Your task to perform on an android device: delete location history Image 0: 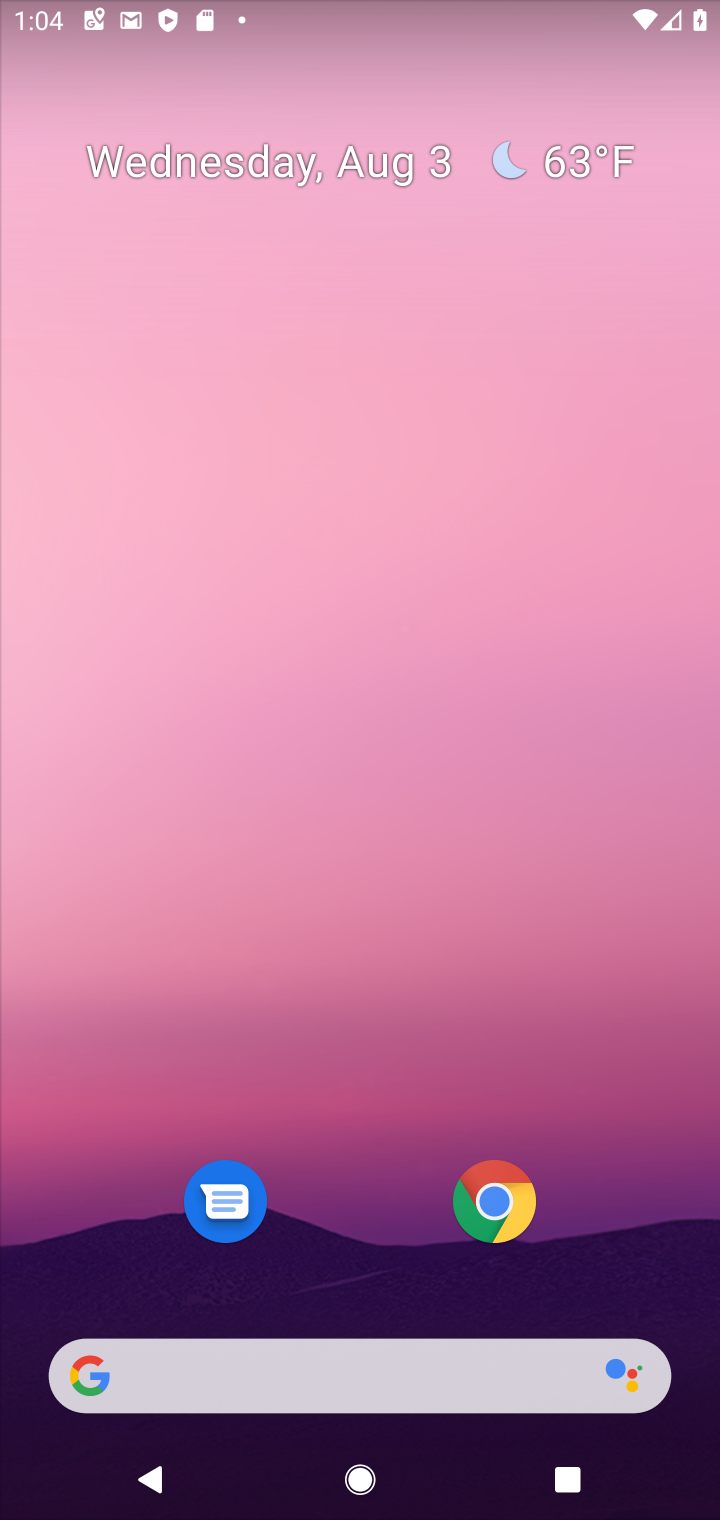
Step 0: drag from (414, 1360) to (488, 196)
Your task to perform on an android device: delete location history Image 1: 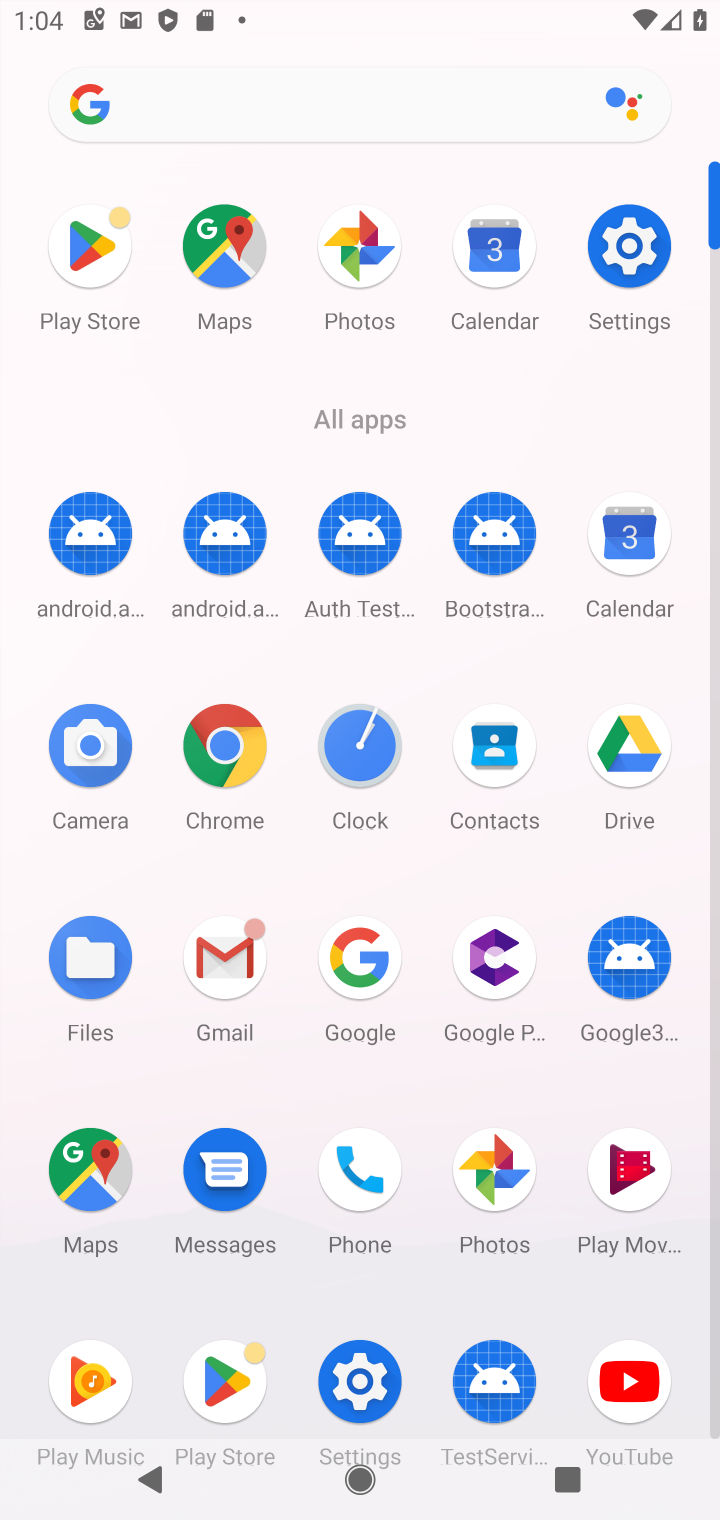
Step 1: click (91, 1163)
Your task to perform on an android device: delete location history Image 2: 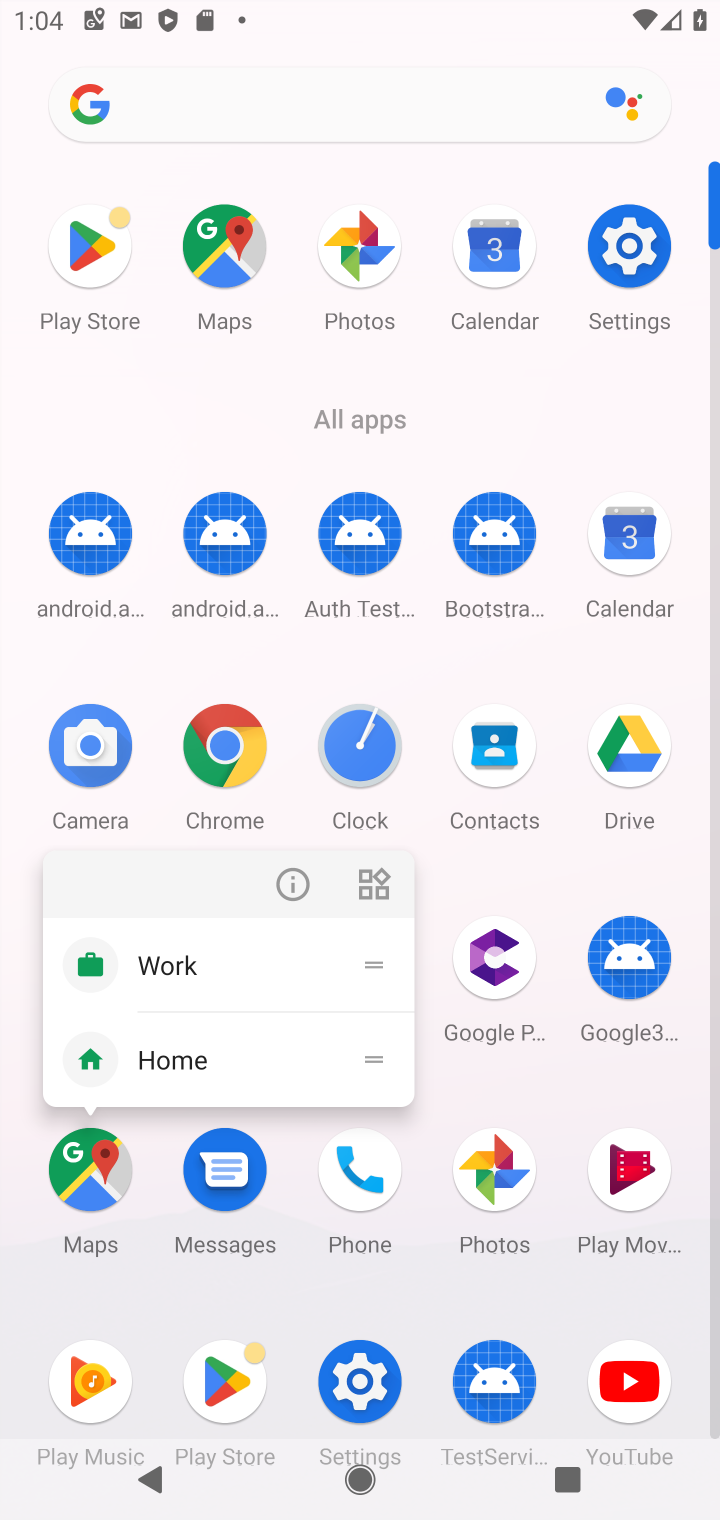
Step 2: click (91, 1170)
Your task to perform on an android device: delete location history Image 3: 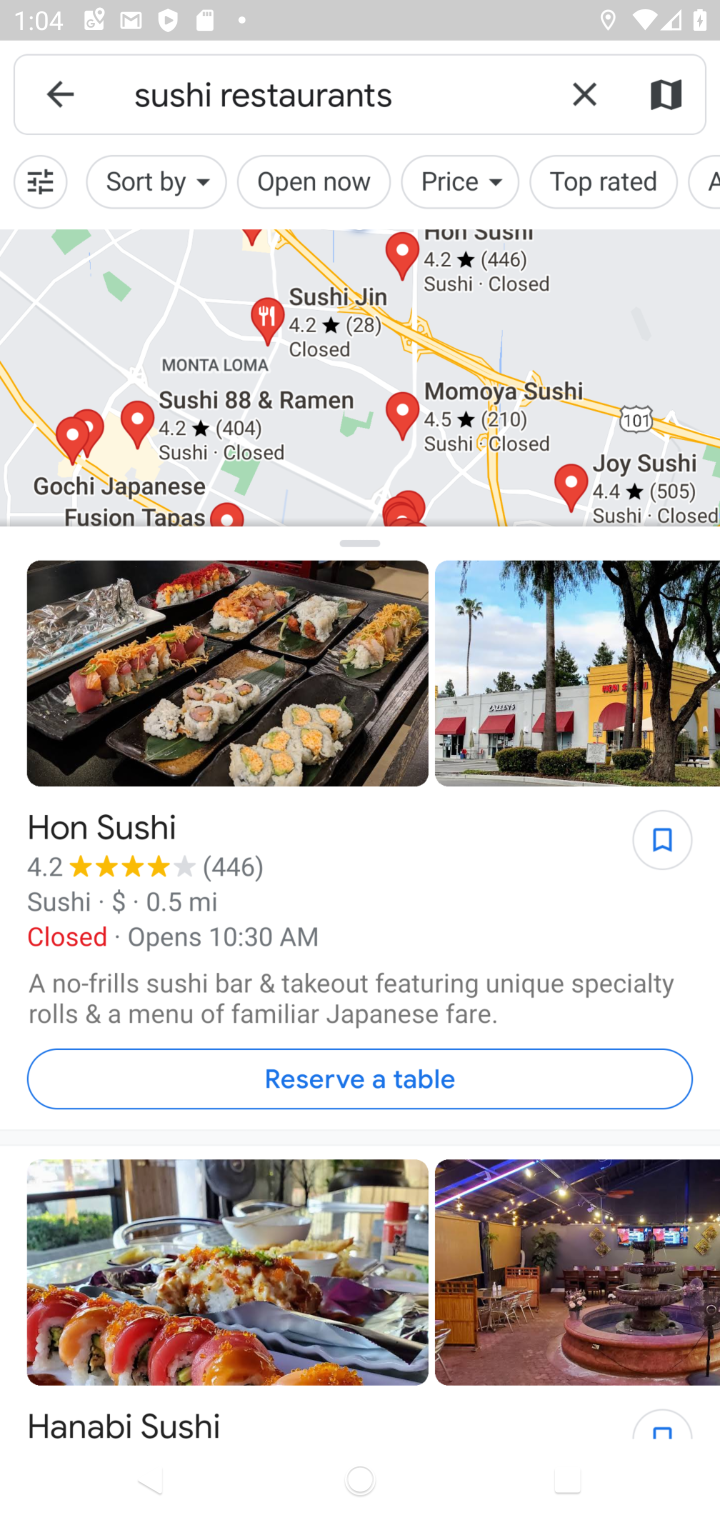
Step 3: click (70, 95)
Your task to perform on an android device: delete location history Image 4: 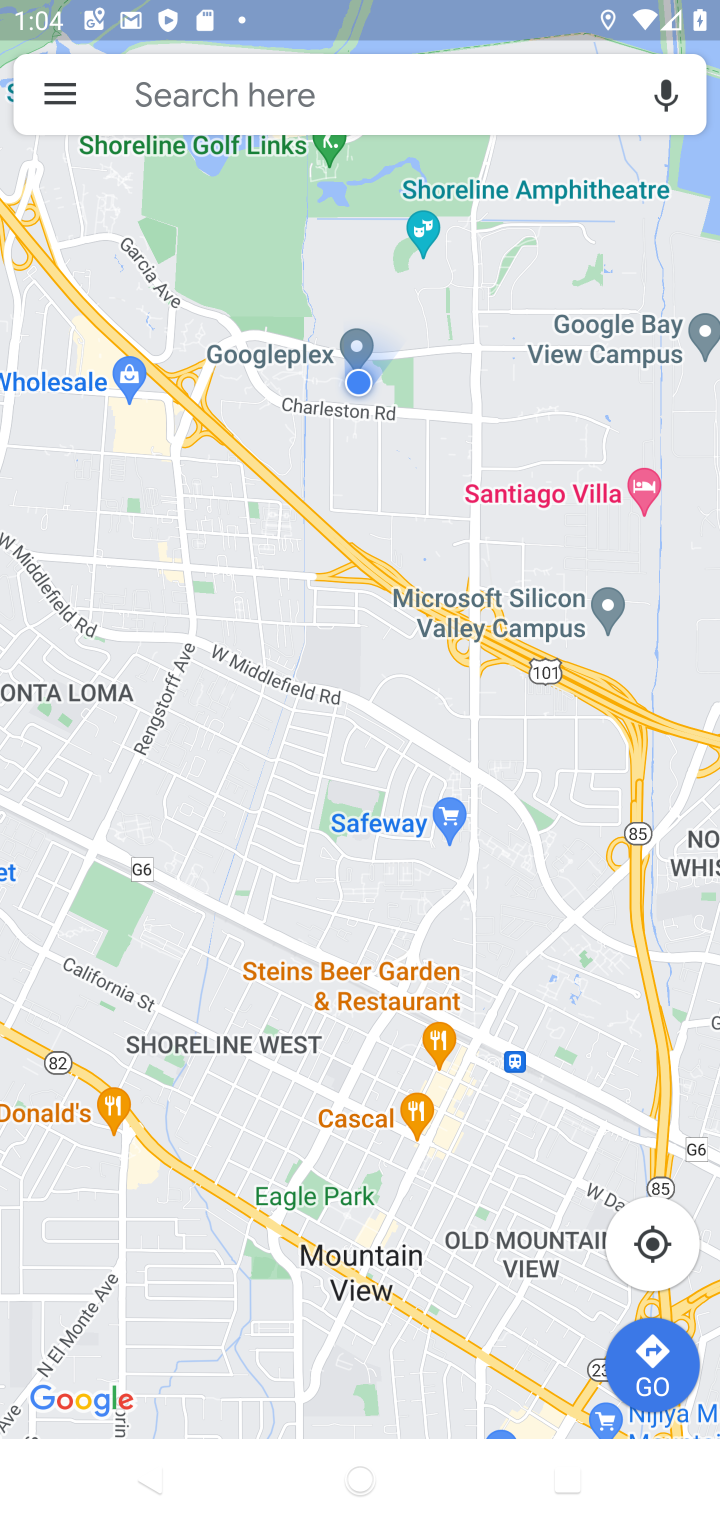
Step 4: click (62, 84)
Your task to perform on an android device: delete location history Image 5: 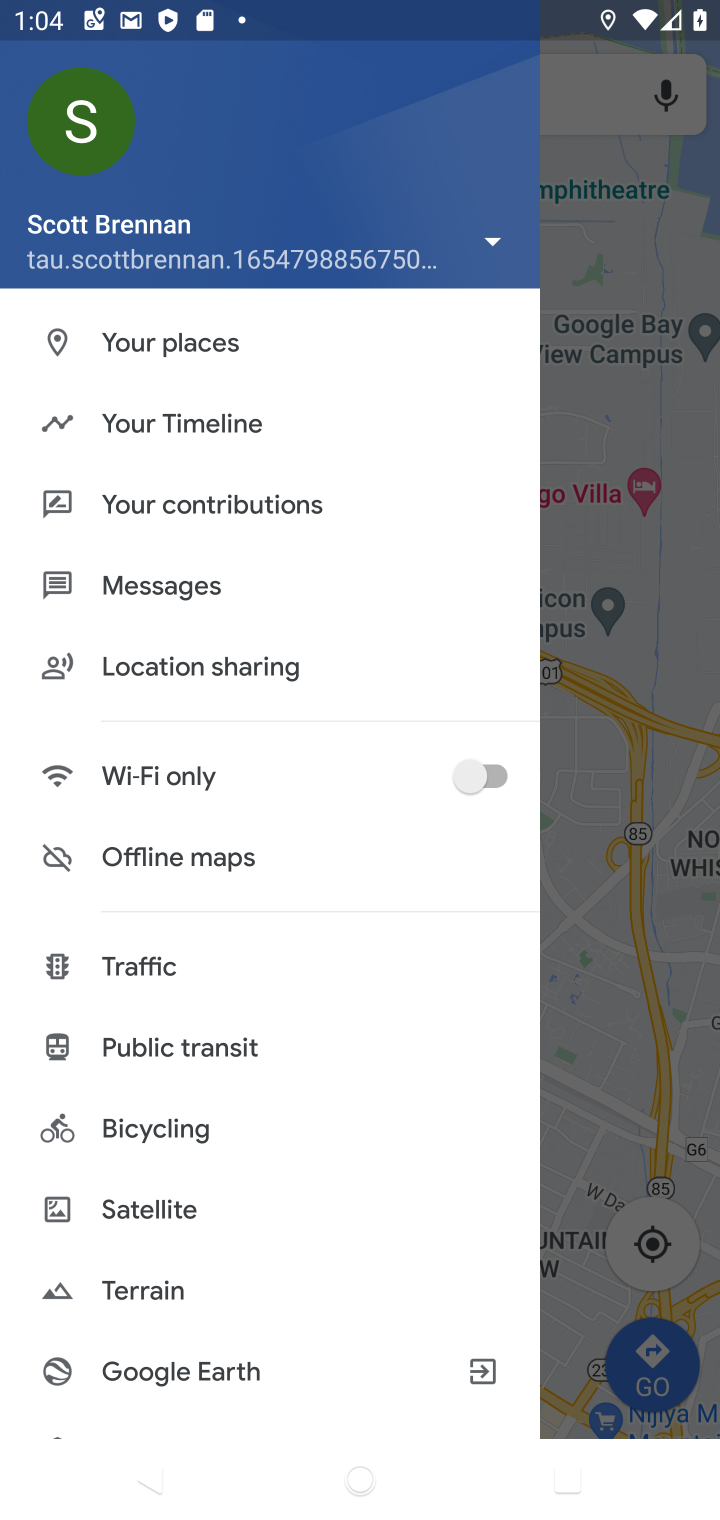
Step 5: click (237, 434)
Your task to perform on an android device: delete location history Image 6: 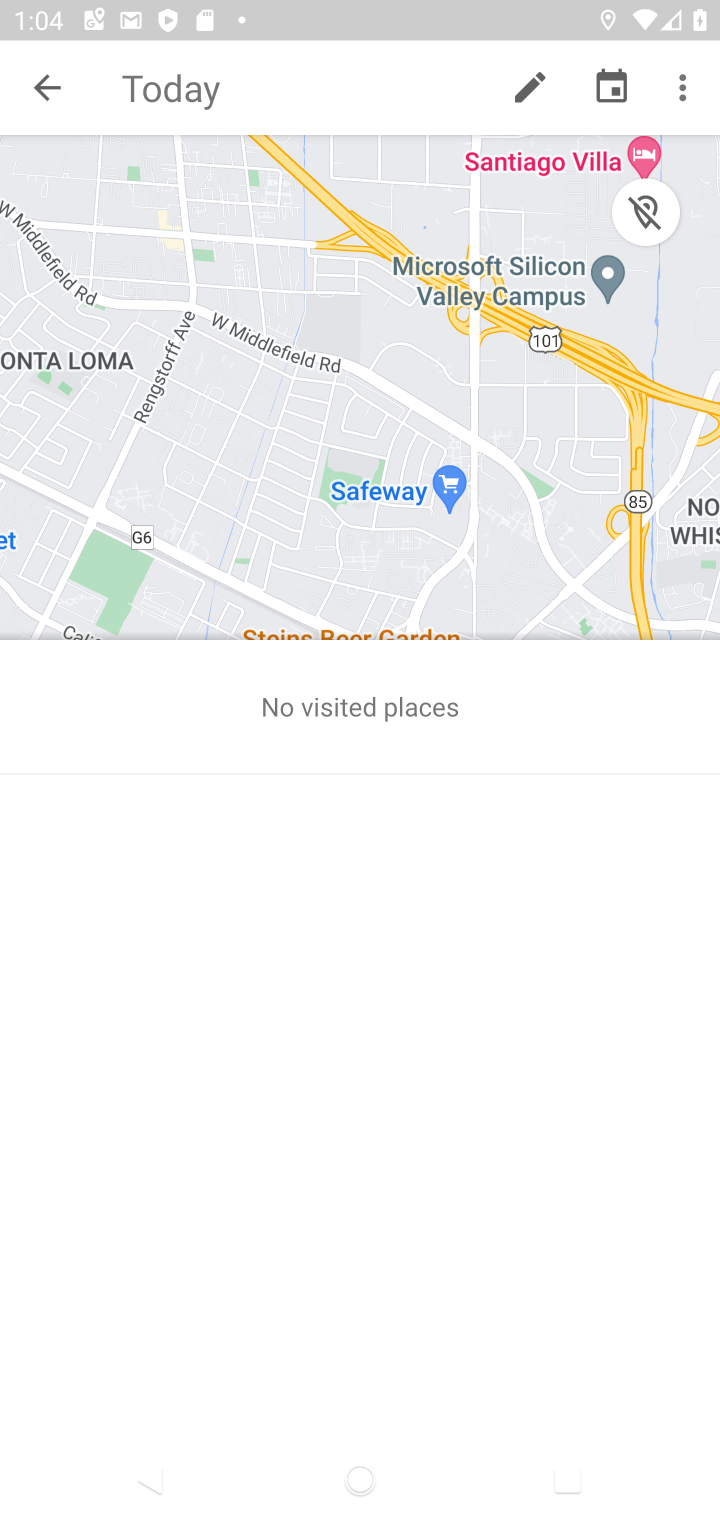
Step 6: click (684, 83)
Your task to perform on an android device: delete location history Image 7: 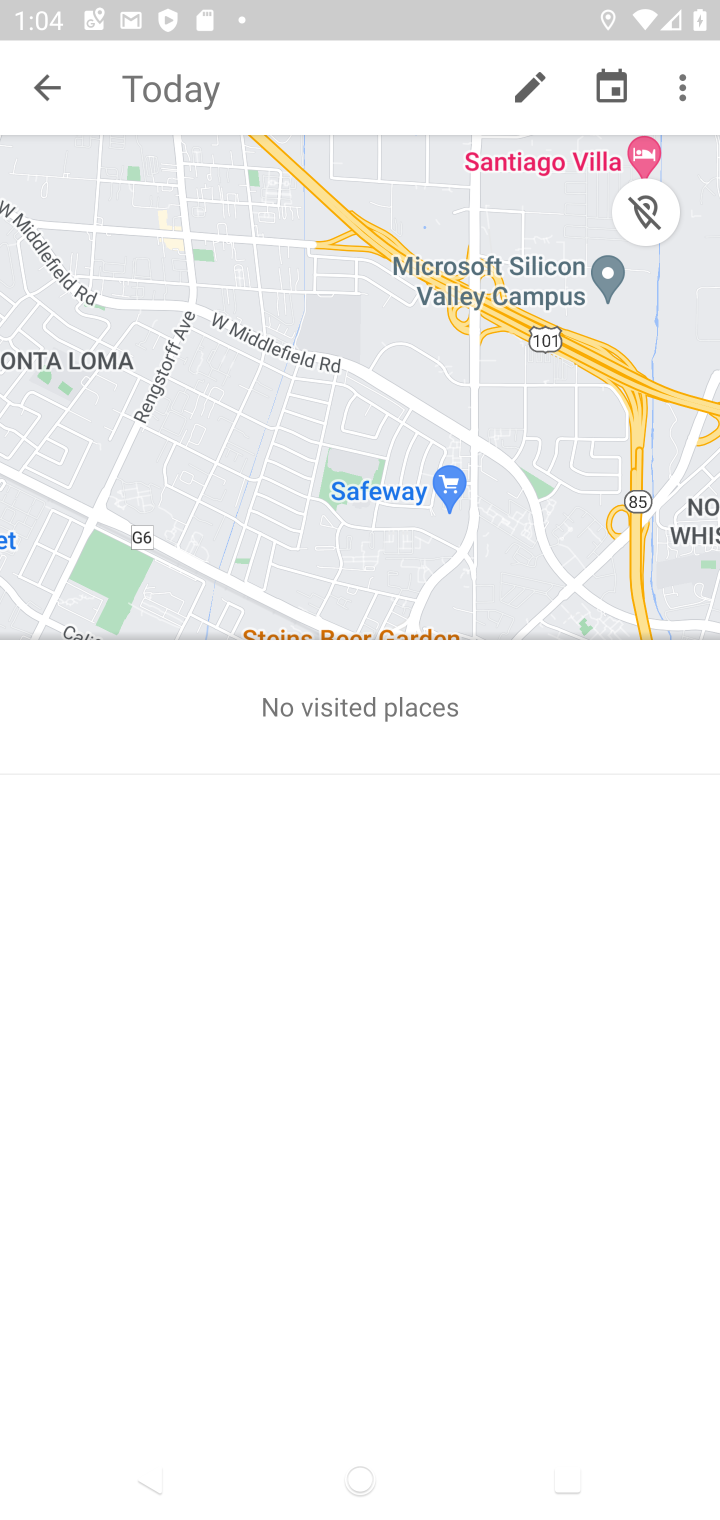
Step 7: click (677, 93)
Your task to perform on an android device: delete location history Image 8: 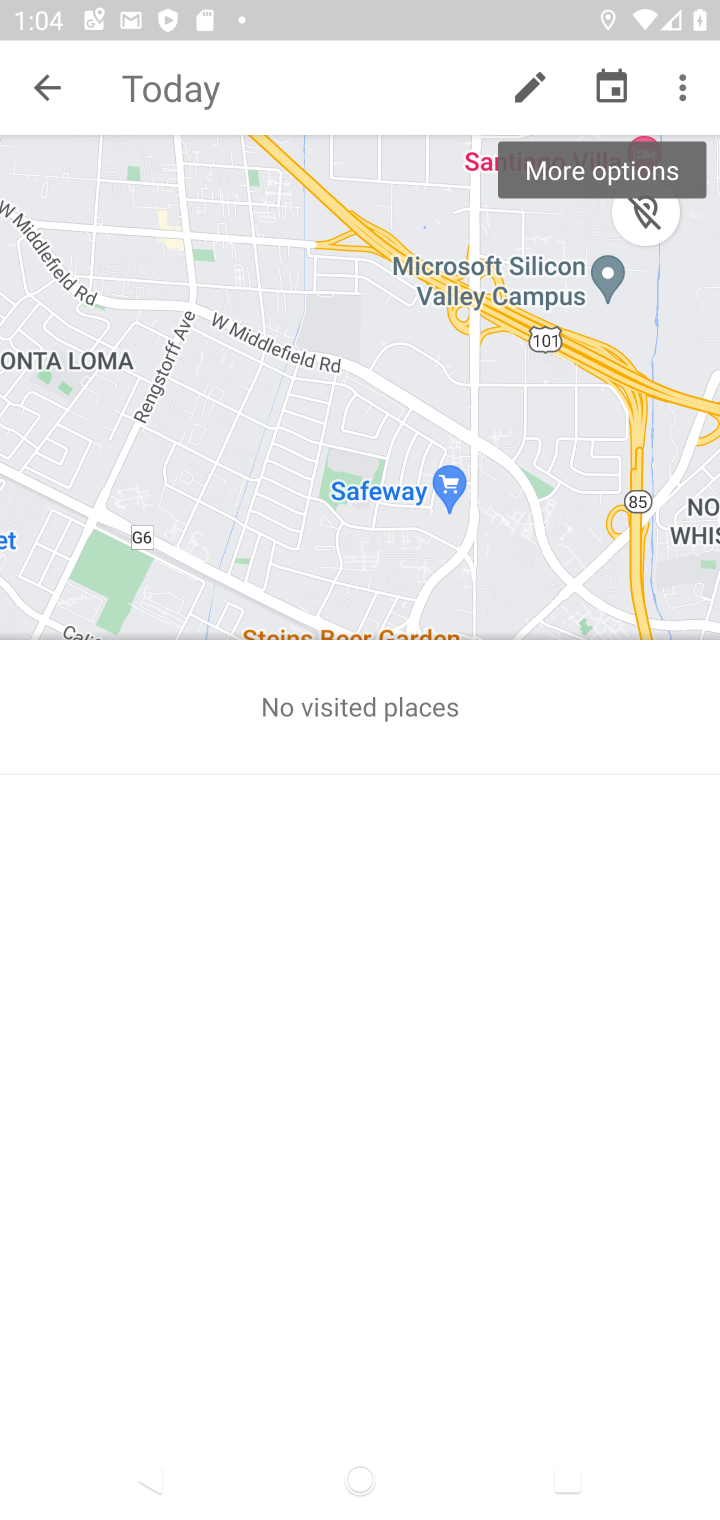
Step 8: click (683, 77)
Your task to perform on an android device: delete location history Image 9: 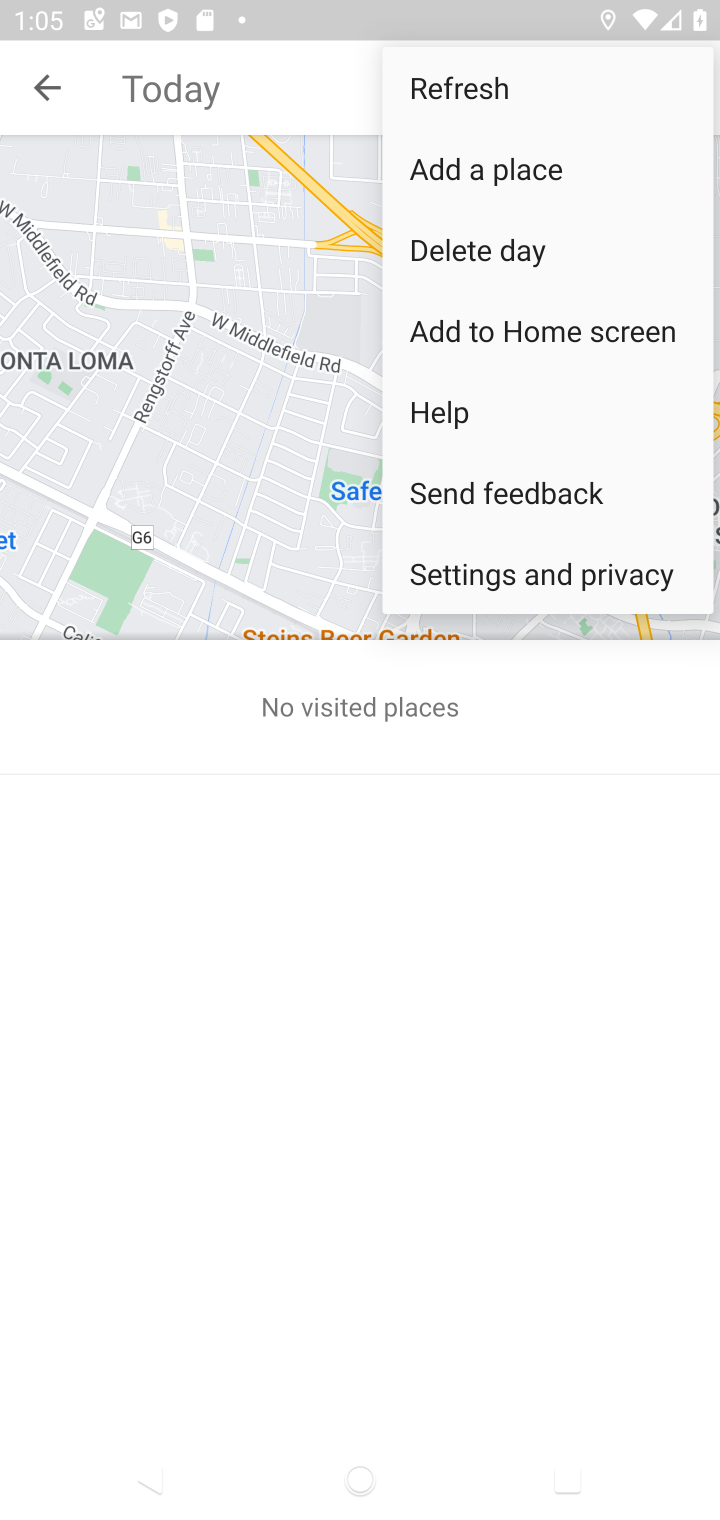
Step 9: click (460, 578)
Your task to perform on an android device: delete location history Image 10: 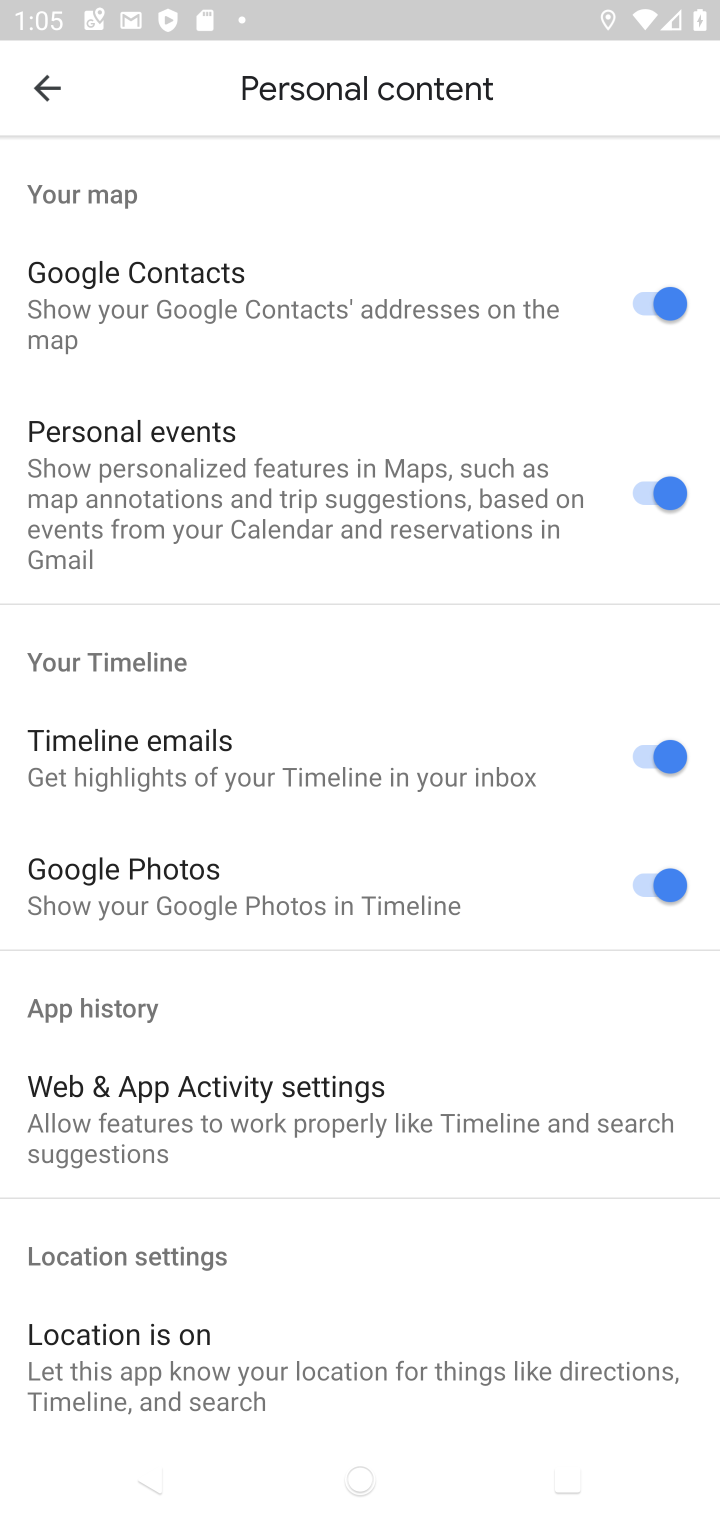
Step 10: drag from (327, 1328) to (535, 328)
Your task to perform on an android device: delete location history Image 11: 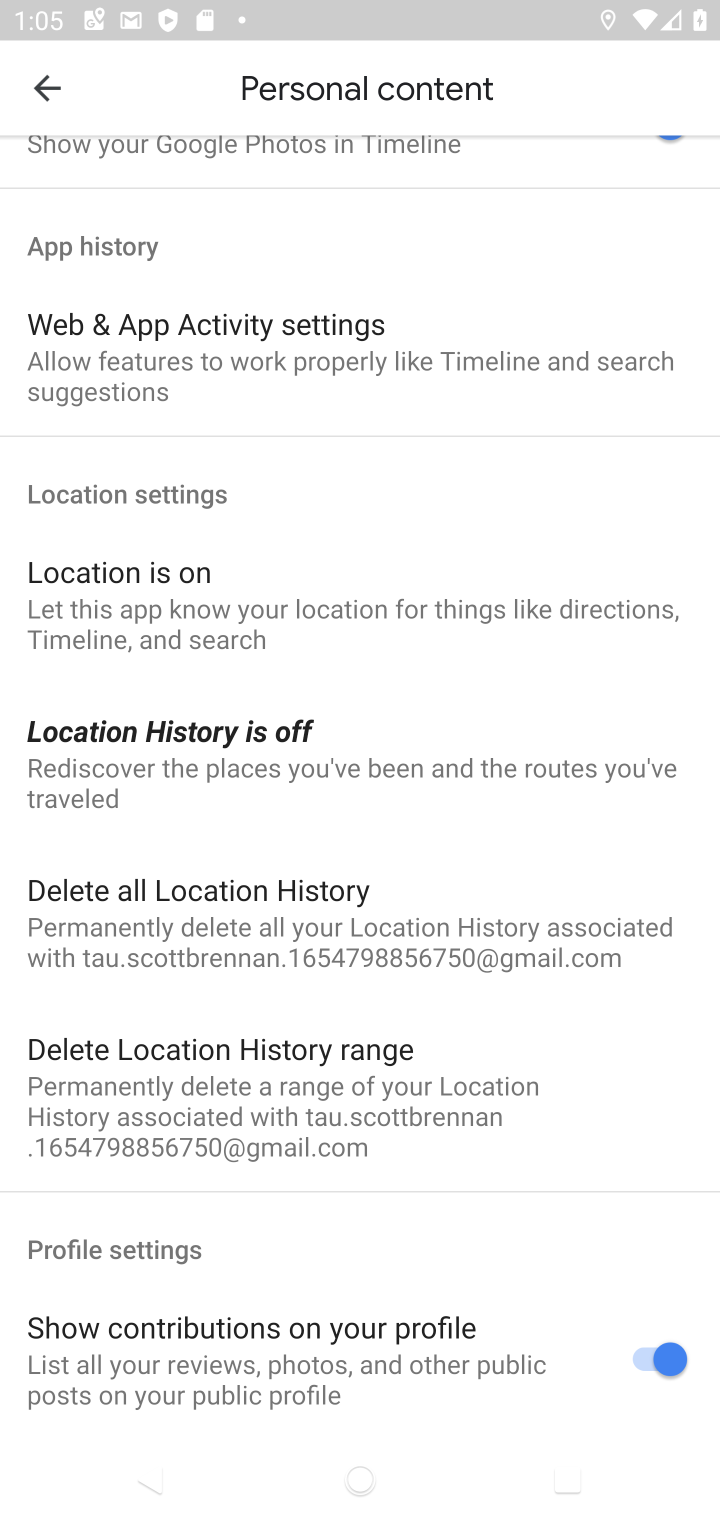
Step 11: click (240, 923)
Your task to perform on an android device: delete location history Image 12: 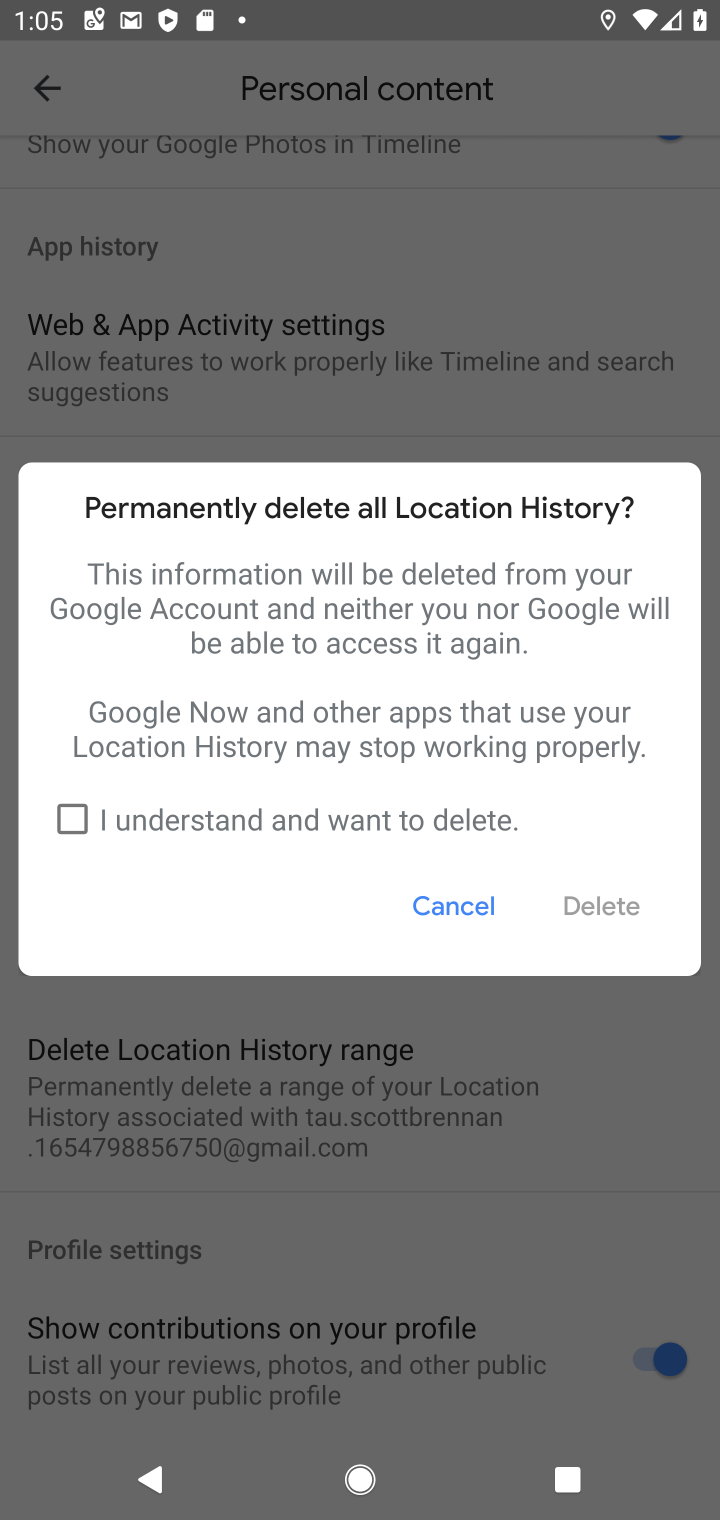
Step 12: click (70, 806)
Your task to perform on an android device: delete location history Image 13: 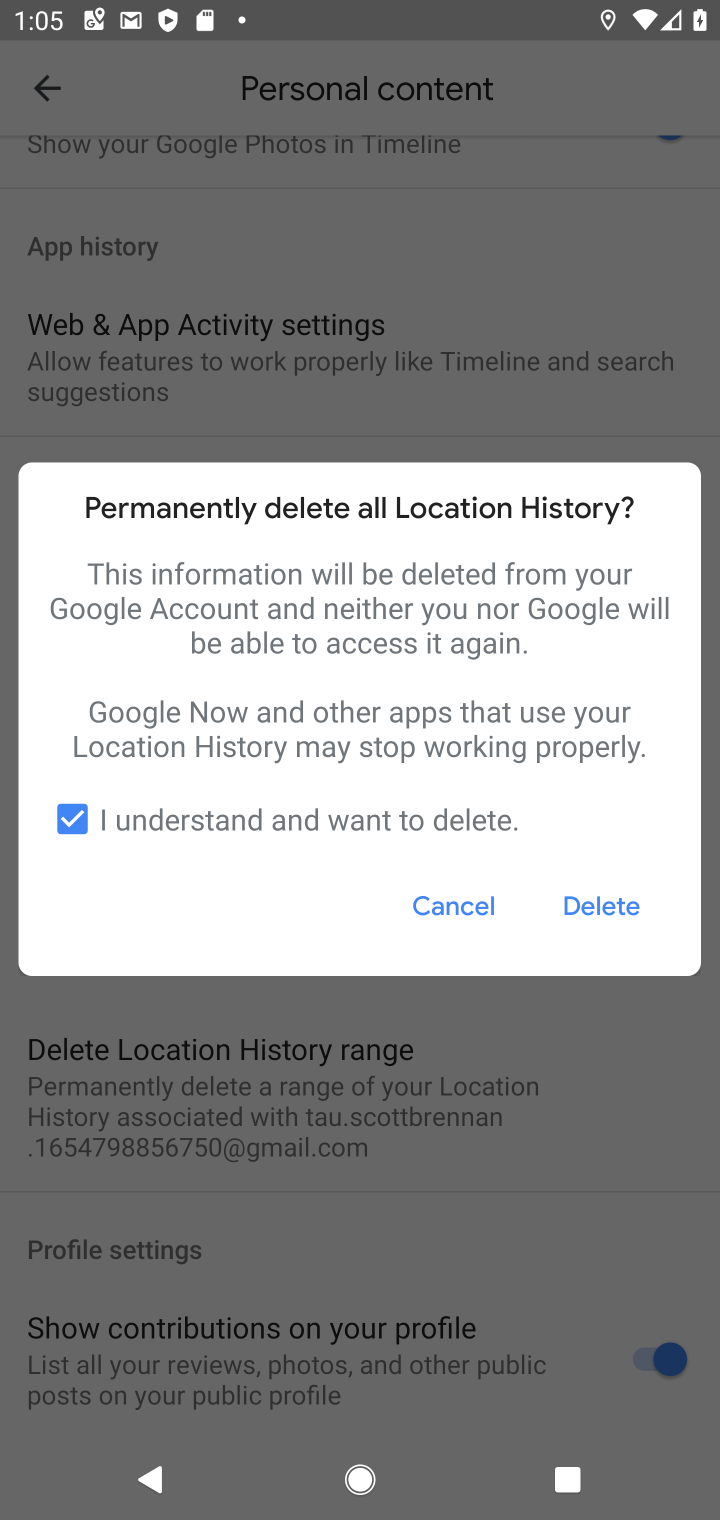
Step 13: click (622, 906)
Your task to perform on an android device: delete location history Image 14: 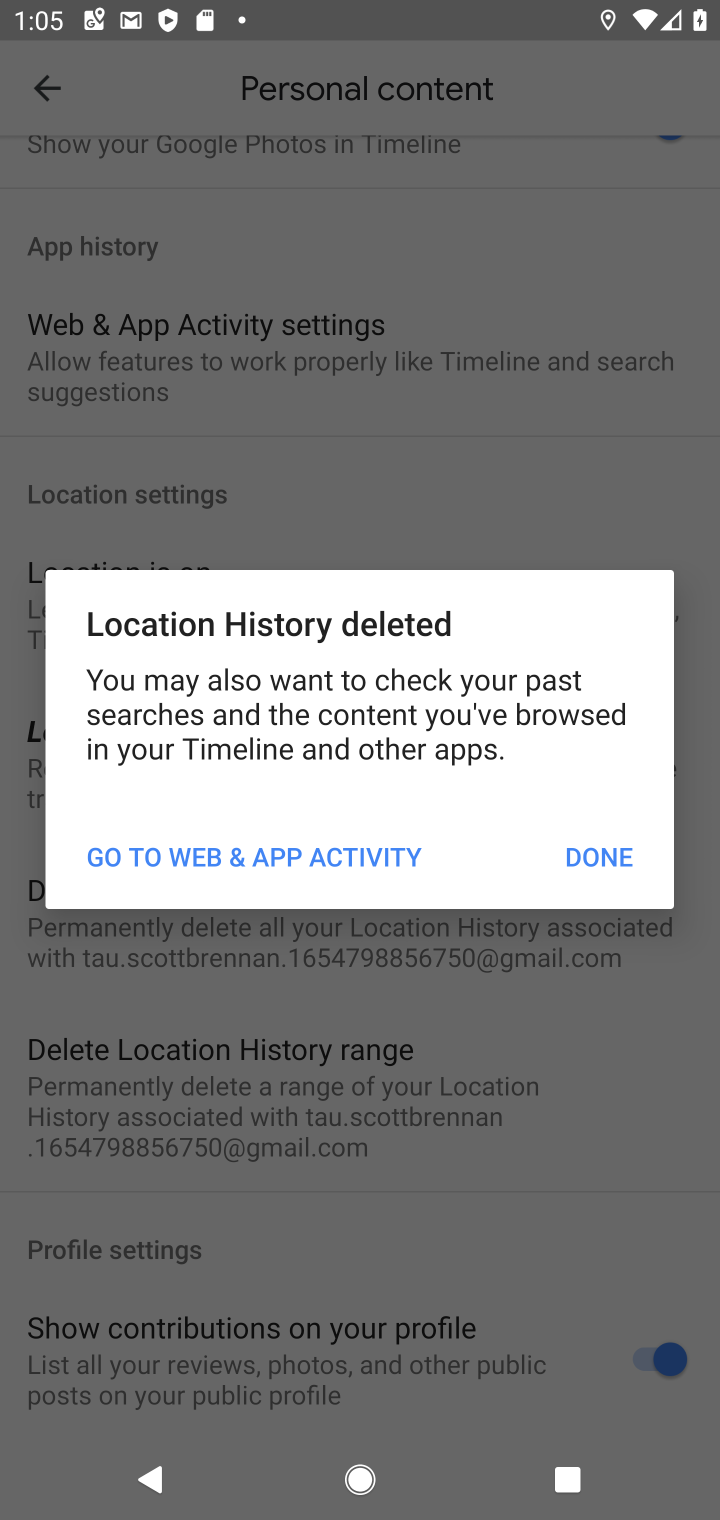
Step 14: click (577, 849)
Your task to perform on an android device: delete location history Image 15: 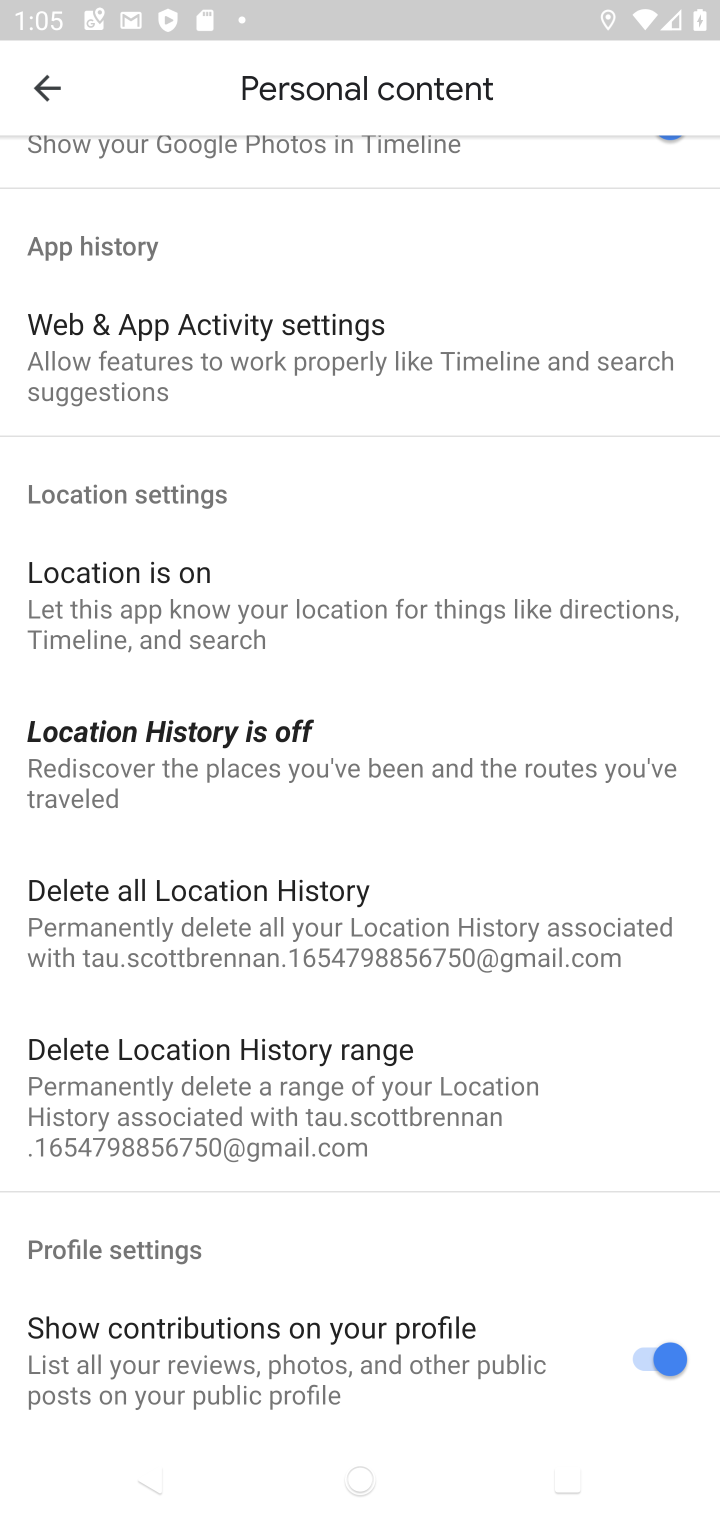
Step 15: task complete